Your task to perform on an android device: Go to notification settings Image 0: 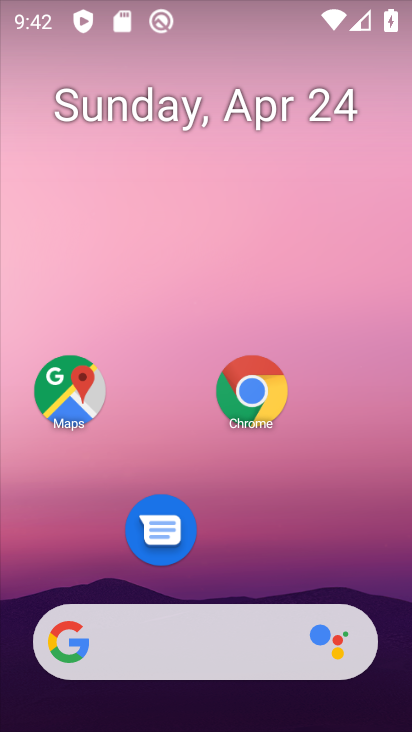
Step 0: drag from (257, 538) to (298, 144)
Your task to perform on an android device: Go to notification settings Image 1: 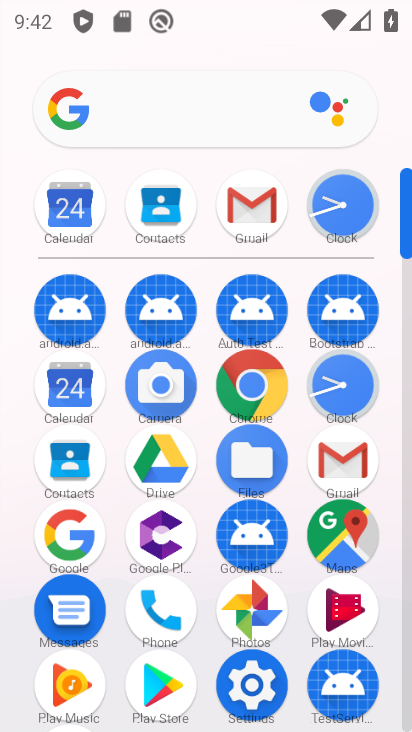
Step 1: click (261, 668)
Your task to perform on an android device: Go to notification settings Image 2: 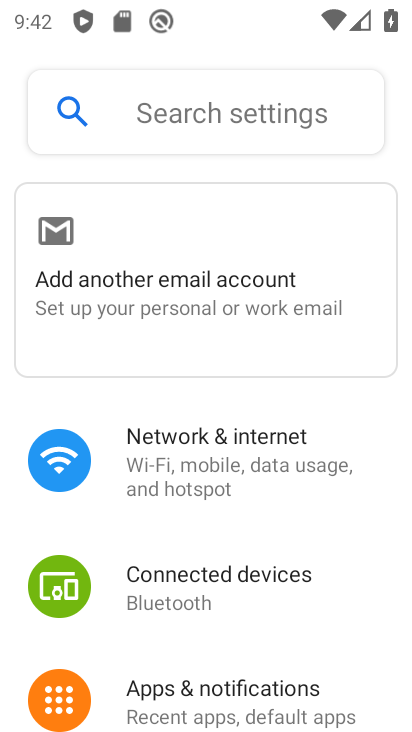
Step 2: click (220, 708)
Your task to perform on an android device: Go to notification settings Image 3: 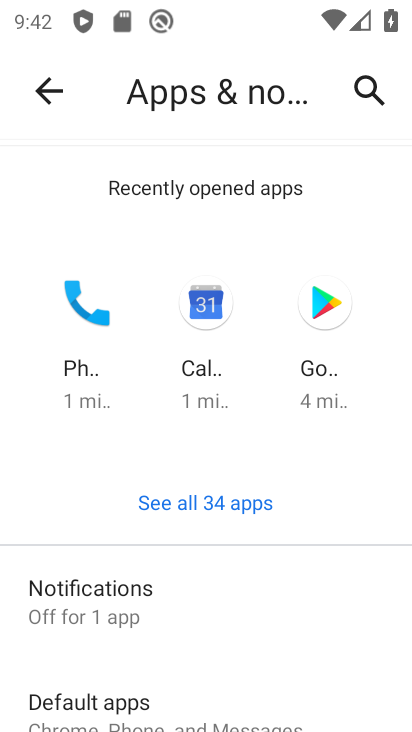
Step 3: task complete